Your task to perform on an android device: Open Android settings Image 0: 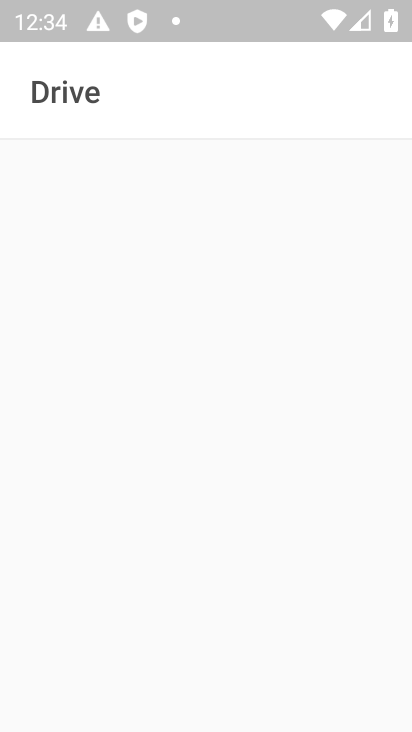
Step 0: press home button
Your task to perform on an android device: Open Android settings Image 1: 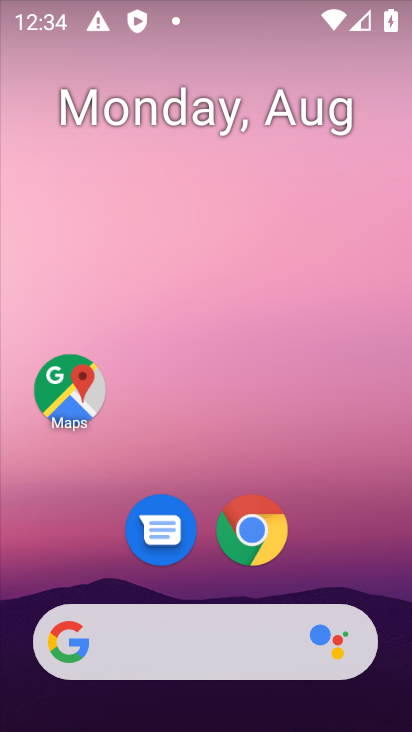
Step 1: drag from (210, 432) to (215, 81)
Your task to perform on an android device: Open Android settings Image 2: 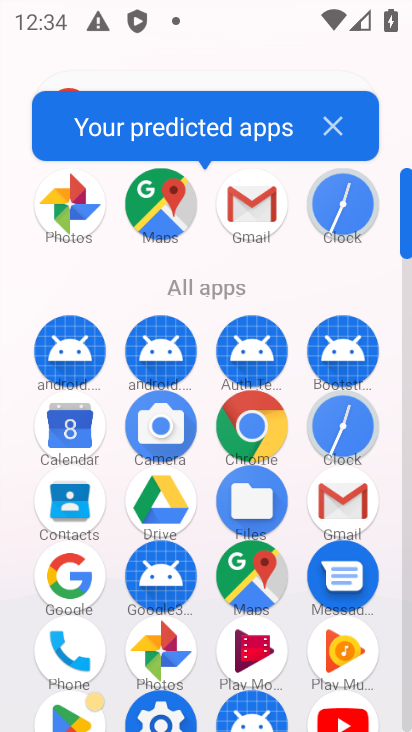
Step 2: click (151, 708)
Your task to perform on an android device: Open Android settings Image 3: 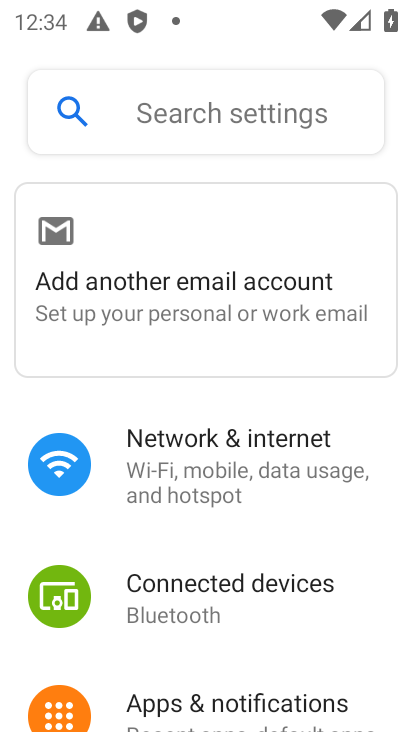
Step 3: task complete